Your task to perform on an android device: clear all cookies in the chrome app Image 0: 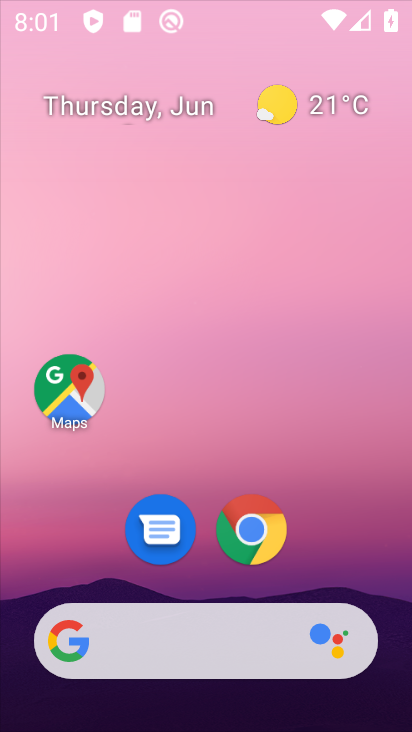
Step 0: click (205, 20)
Your task to perform on an android device: clear all cookies in the chrome app Image 1: 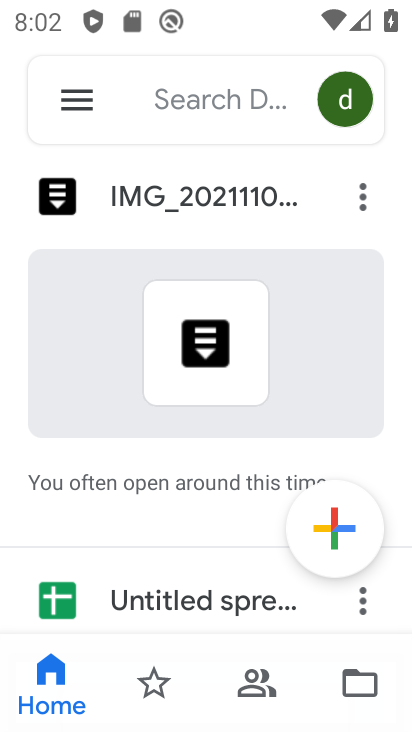
Step 1: press home button
Your task to perform on an android device: clear all cookies in the chrome app Image 2: 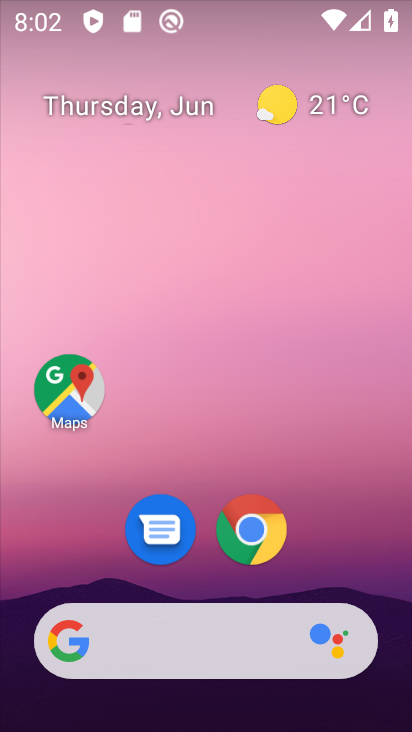
Step 2: click (261, 523)
Your task to perform on an android device: clear all cookies in the chrome app Image 3: 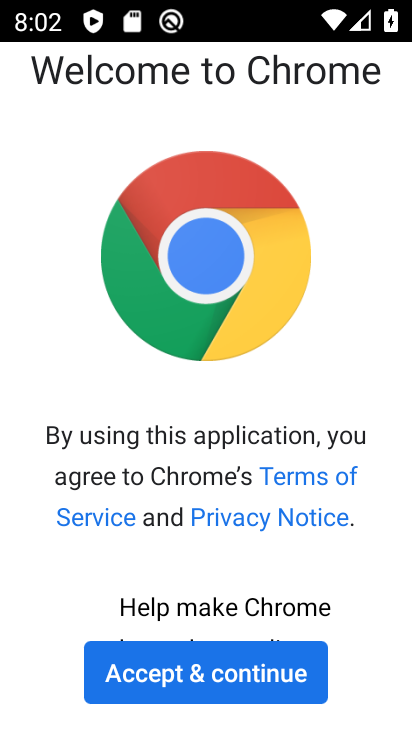
Step 3: click (199, 662)
Your task to perform on an android device: clear all cookies in the chrome app Image 4: 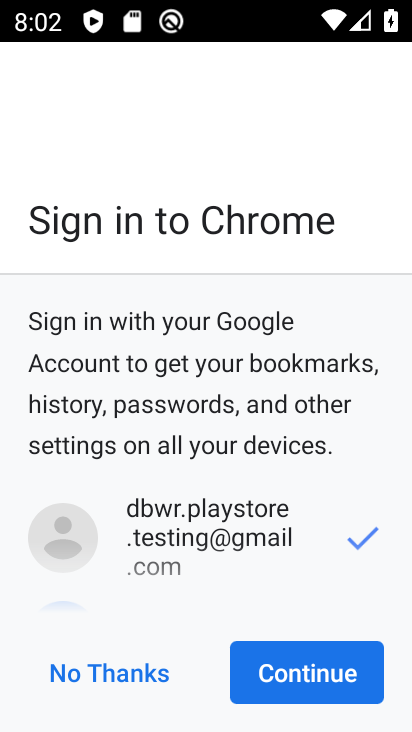
Step 4: click (287, 688)
Your task to perform on an android device: clear all cookies in the chrome app Image 5: 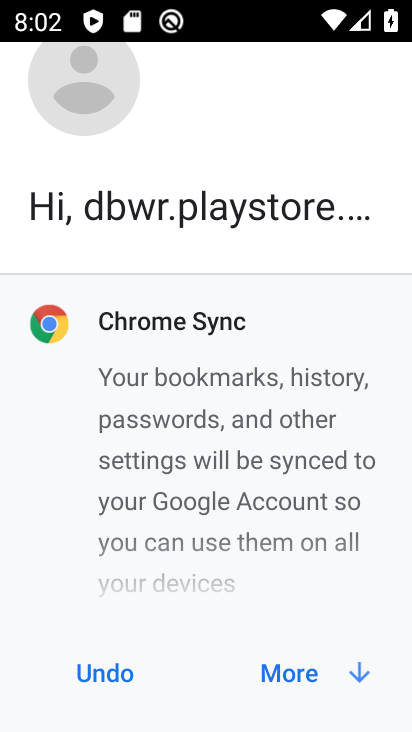
Step 5: click (363, 670)
Your task to perform on an android device: clear all cookies in the chrome app Image 6: 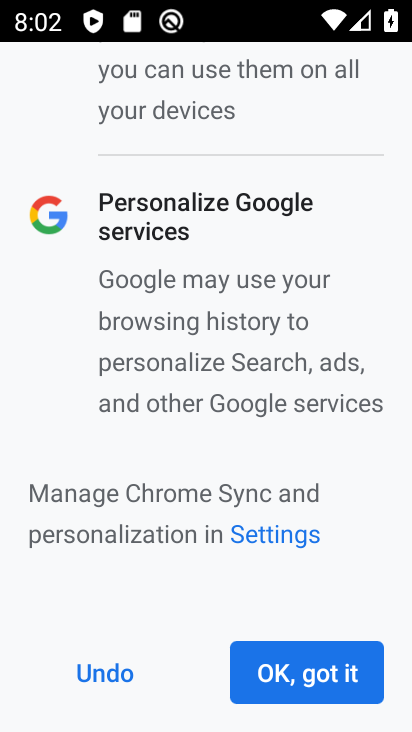
Step 6: click (320, 665)
Your task to perform on an android device: clear all cookies in the chrome app Image 7: 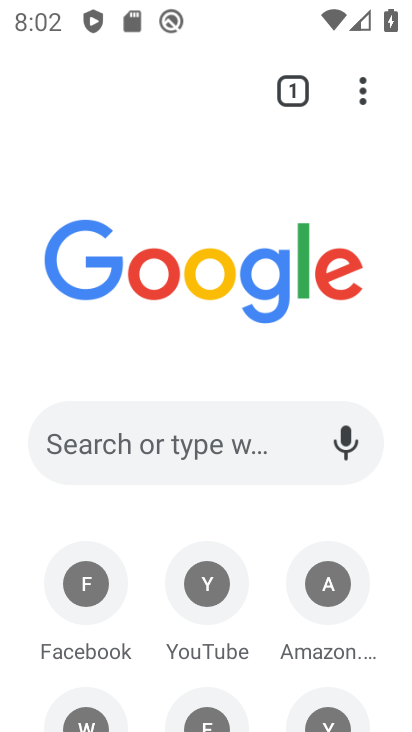
Step 7: click (365, 89)
Your task to perform on an android device: clear all cookies in the chrome app Image 8: 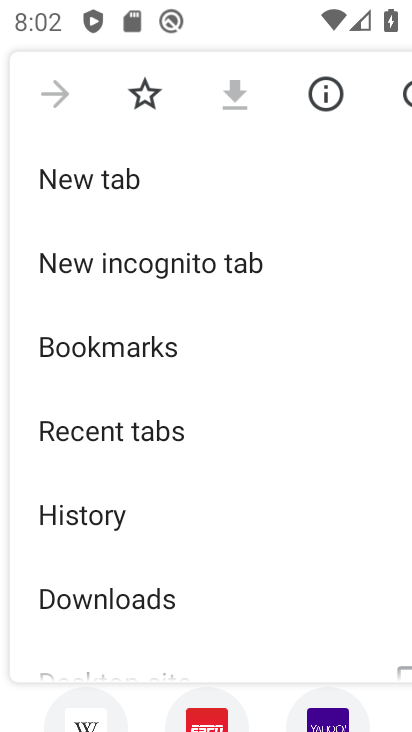
Step 8: click (102, 518)
Your task to perform on an android device: clear all cookies in the chrome app Image 9: 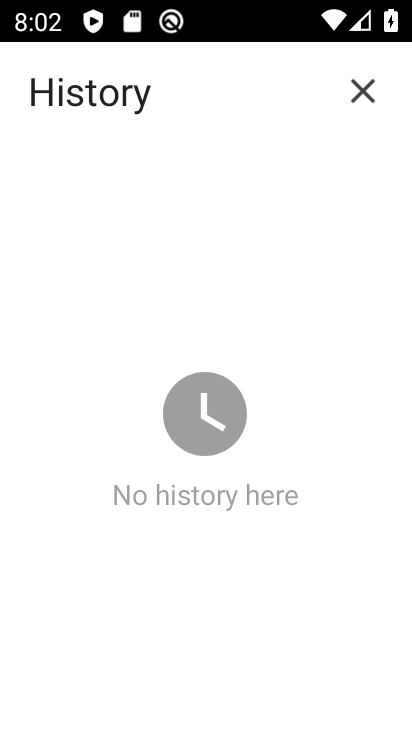
Step 9: task complete